Your task to perform on an android device: snooze an email in the gmail app Image 0: 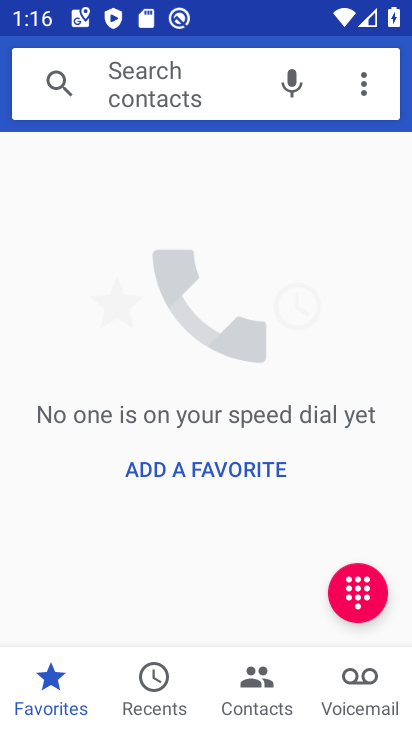
Step 0: press home button
Your task to perform on an android device: snooze an email in the gmail app Image 1: 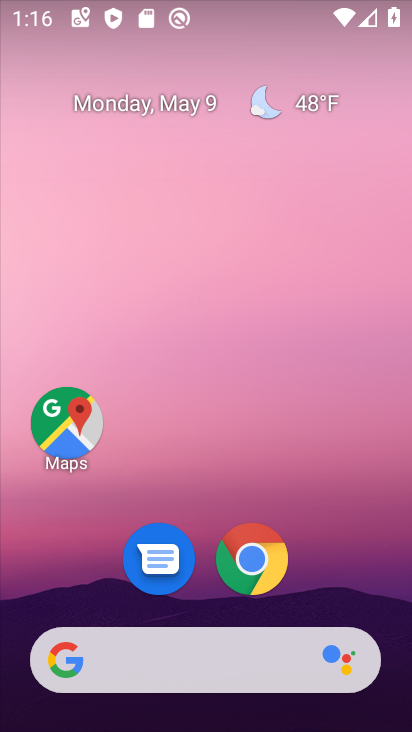
Step 1: drag from (341, 582) to (380, 285)
Your task to perform on an android device: snooze an email in the gmail app Image 2: 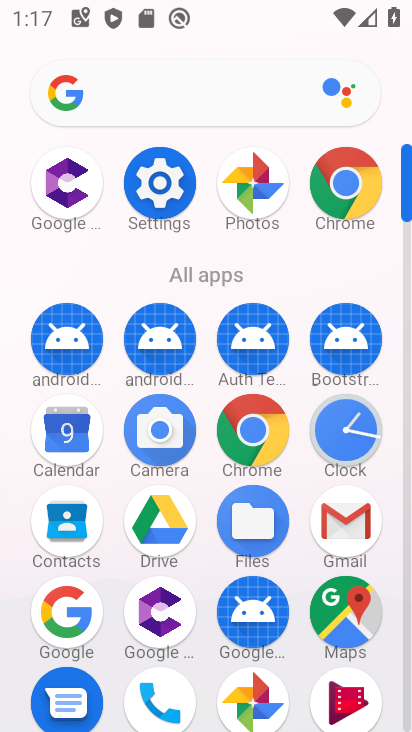
Step 2: click (349, 500)
Your task to perform on an android device: snooze an email in the gmail app Image 3: 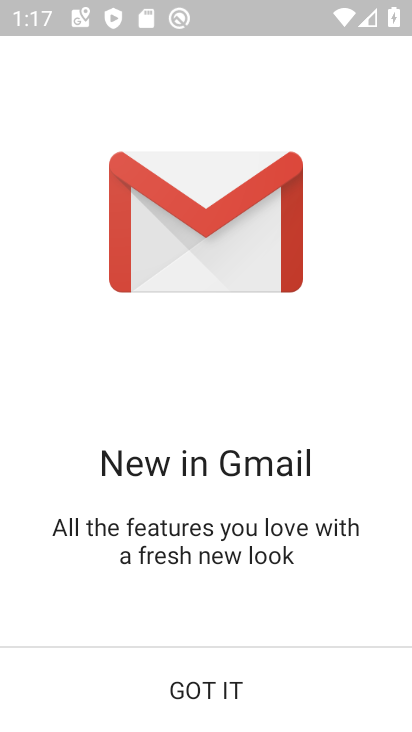
Step 3: click (217, 702)
Your task to perform on an android device: snooze an email in the gmail app Image 4: 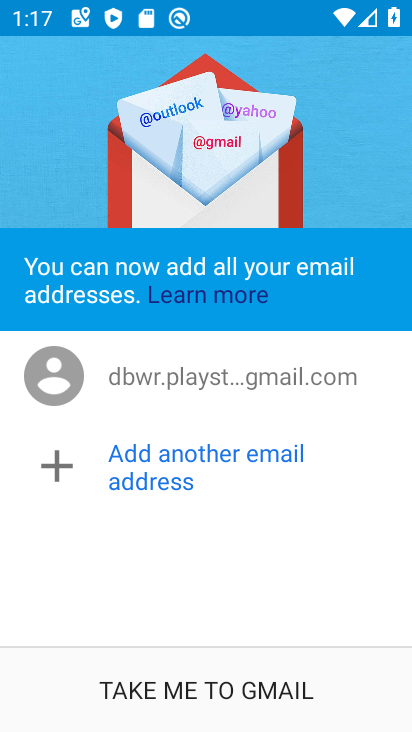
Step 4: click (236, 714)
Your task to perform on an android device: snooze an email in the gmail app Image 5: 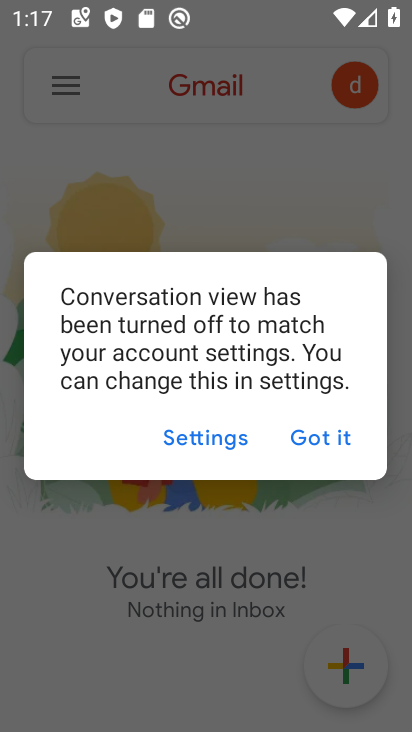
Step 5: click (298, 429)
Your task to perform on an android device: snooze an email in the gmail app Image 6: 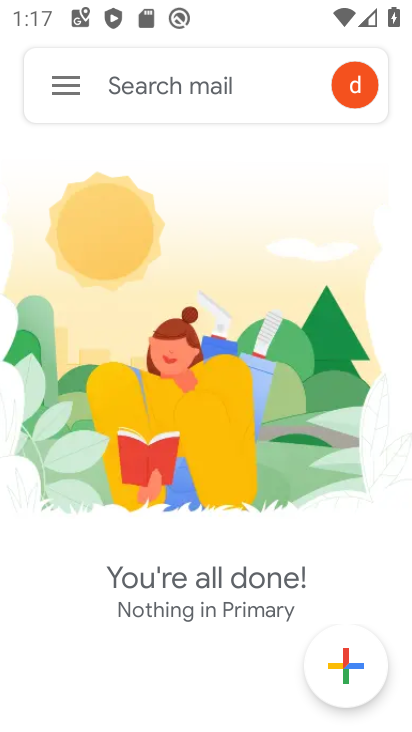
Step 6: click (76, 75)
Your task to perform on an android device: snooze an email in the gmail app Image 7: 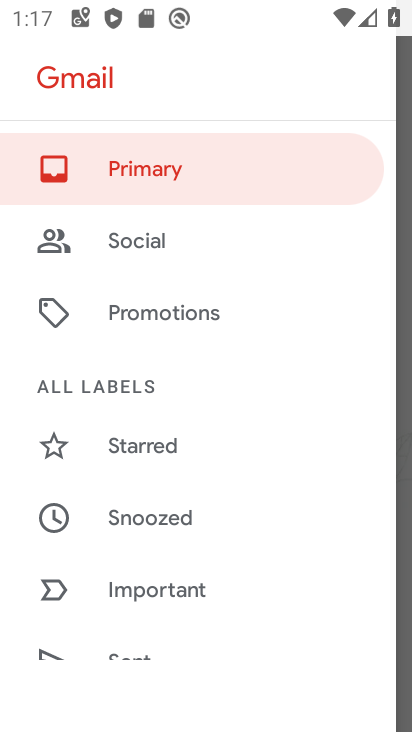
Step 7: click (187, 522)
Your task to perform on an android device: snooze an email in the gmail app Image 8: 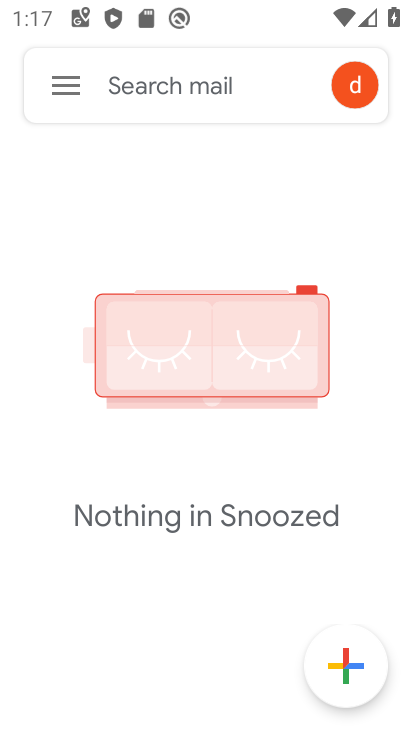
Step 8: task complete